Your task to perform on an android device: turn off picture-in-picture Image 0: 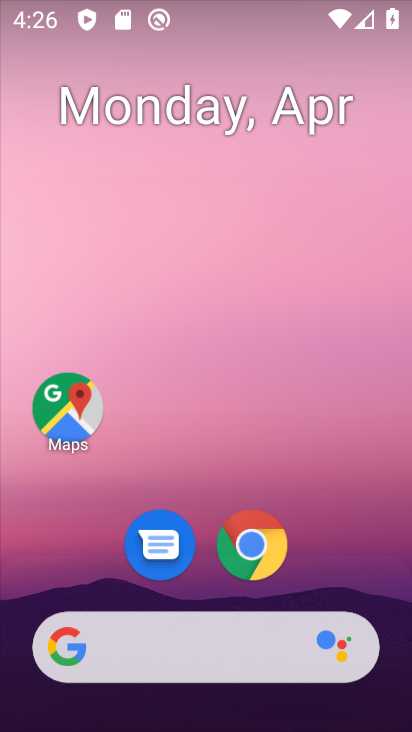
Step 0: click (250, 548)
Your task to perform on an android device: turn off picture-in-picture Image 1: 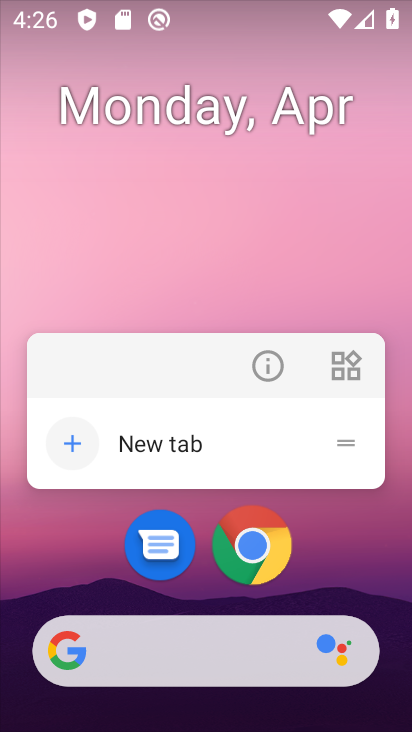
Step 1: click (275, 376)
Your task to perform on an android device: turn off picture-in-picture Image 2: 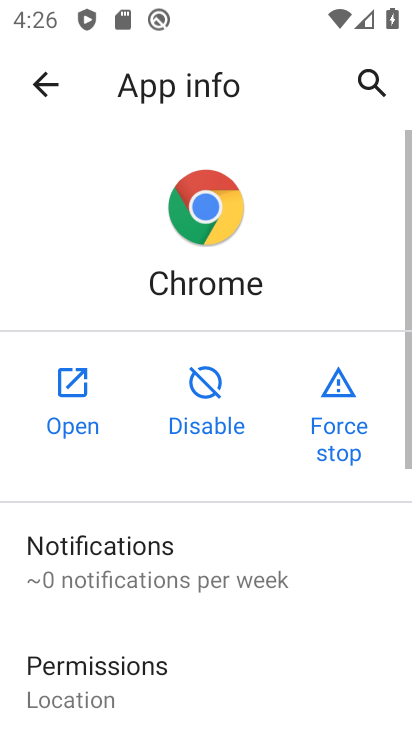
Step 2: drag from (207, 550) to (204, 112)
Your task to perform on an android device: turn off picture-in-picture Image 3: 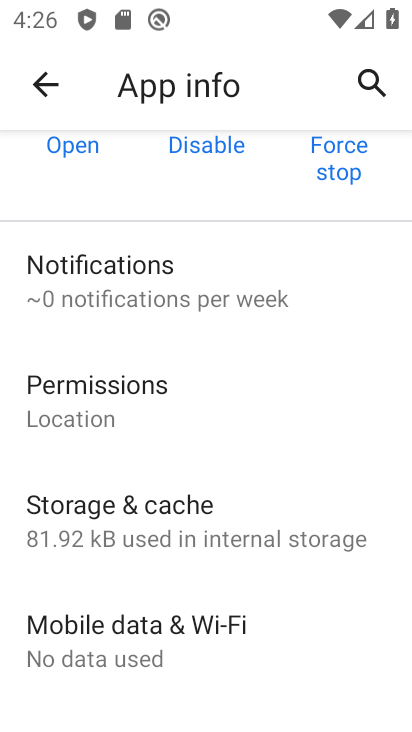
Step 3: drag from (202, 481) to (199, 115)
Your task to perform on an android device: turn off picture-in-picture Image 4: 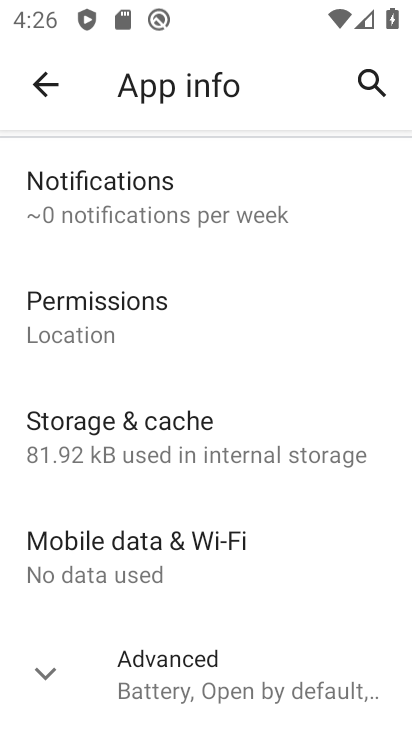
Step 4: click (46, 686)
Your task to perform on an android device: turn off picture-in-picture Image 5: 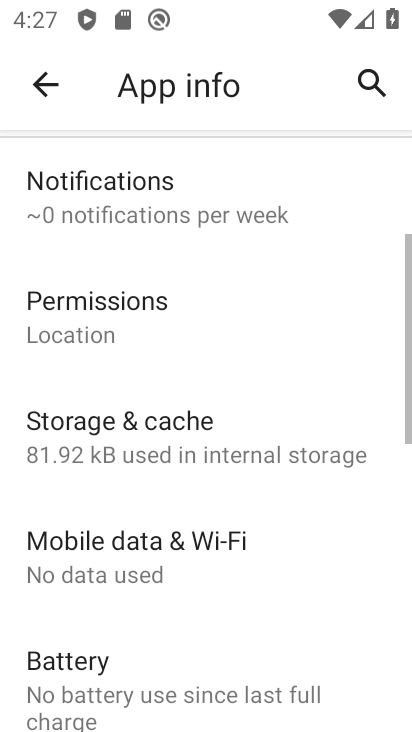
Step 5: drag from (231, 638) to (203, 62)
Your task to perform on an android device: turn off picture-in-picture Image 6: 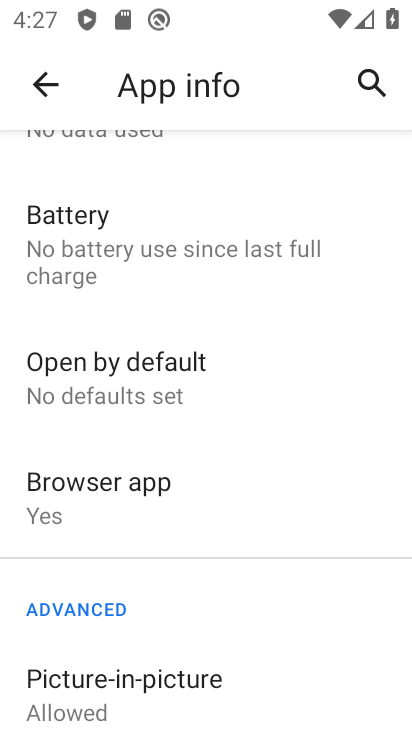
Step 6: click (140, 691)
Your task to perform on an android device: turn off picture-in-picture Image 7: 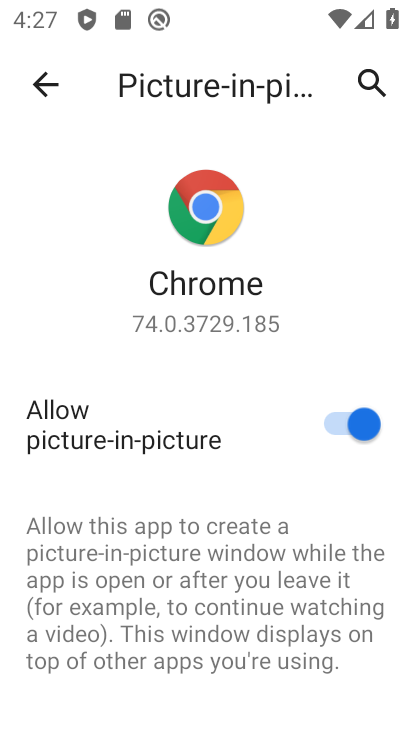
Step 7: click (353, 424)
Your task to perform on an android device: turn off picture-in-picture Image 8: 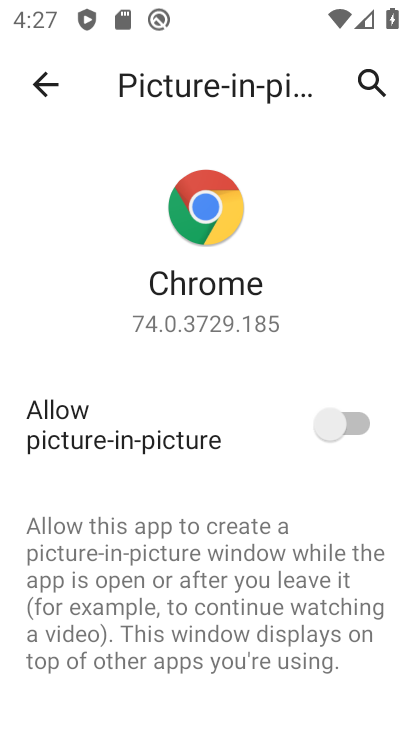
Step 8: task complete